Your task to perform on an android device: turn pop-ups on in chrome Image 0: 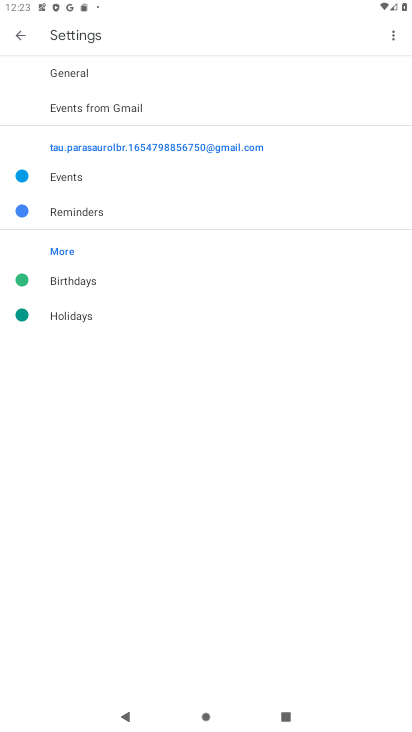
Step 0: press home button
Your task to perform on an android device: turn pop-ups on in chrome Image 1: 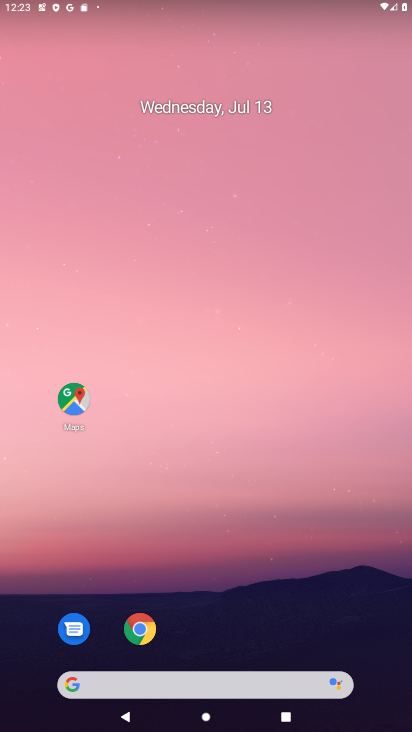
Step 1: click (141, 625)
Your task to perform on an android device: turn pop-ups on in chrome Image 2: 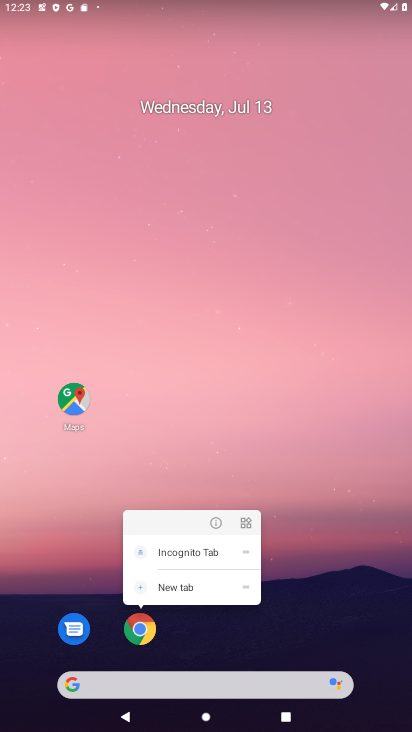
Step 2: click (141, 625)
Your task to perform on an android device: turn pop-ups on in chrome Image 3: 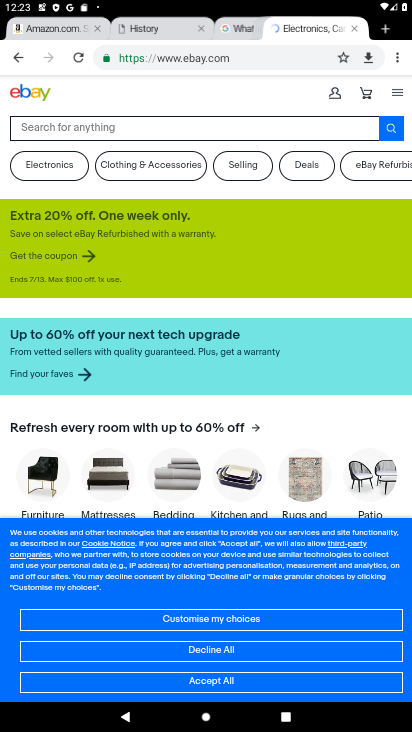
Step 3: click (396, 55)
Your task to perform on an android device: turn pop-ups on in chrome Image 4: 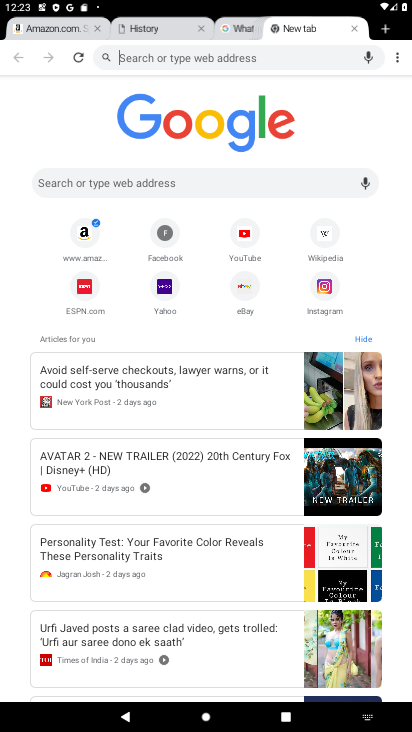
Step 4: click (396, 55)
Your task to perform on an android device: turn pop-ups on in chrome Image 5: 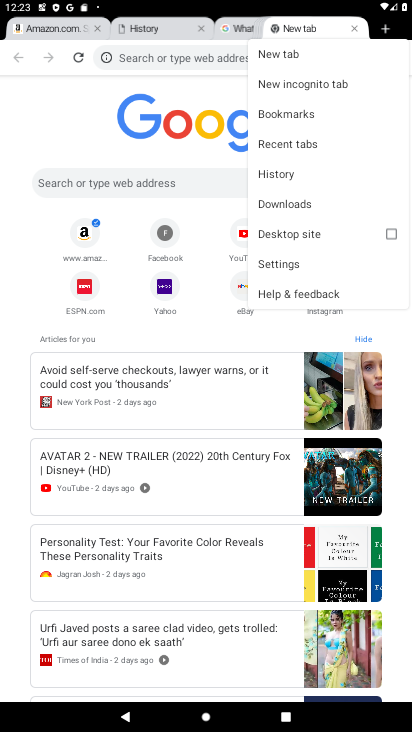
Step 5: click (285, 255)
Your task to perform on an android device: turn pop-ups on in chrome Image 6: 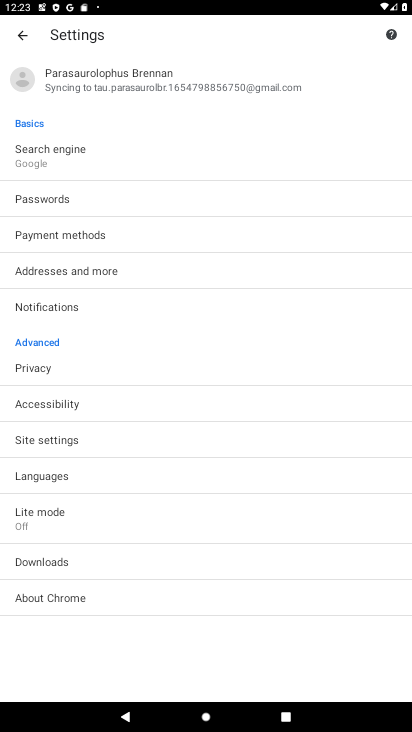
Step 6: click (67, 434)
Your task to perform on an android device: turn pop-ups on in chrome Image 7: 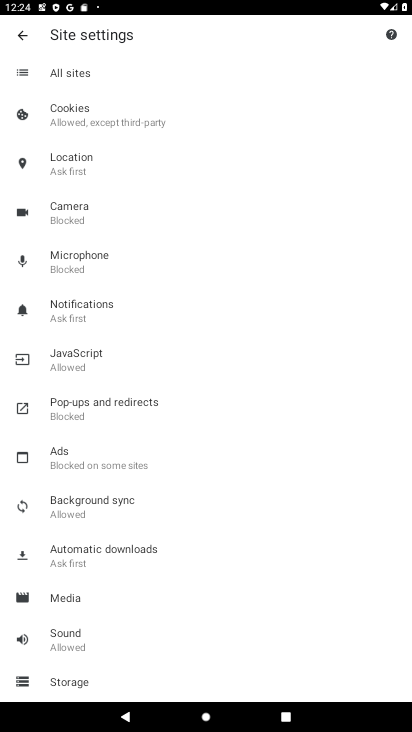
Step 7: click (83, 403)
Your task to perform on an android device: turn pop-ups on in chrome Image 8: 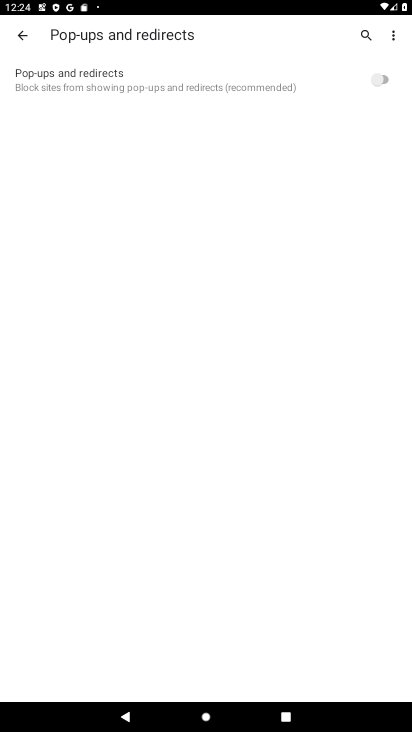
Step 8: click (383, 71)
Your task to perform on an android device: turn pop-ups on in chrome Image 9: 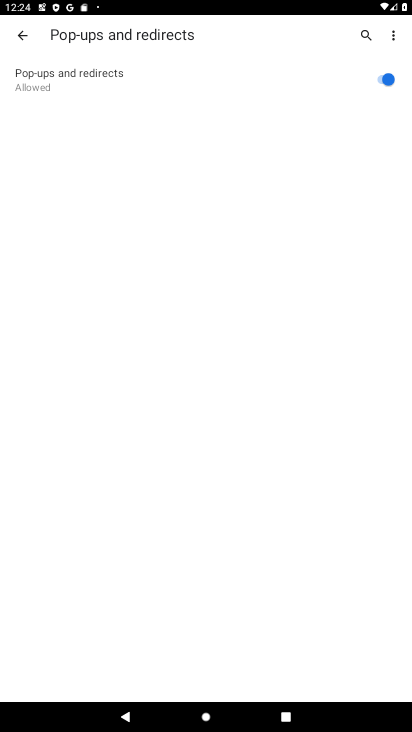
Step 9: task complete